Your task to perform on an android device: Open CNN.com Image 0: 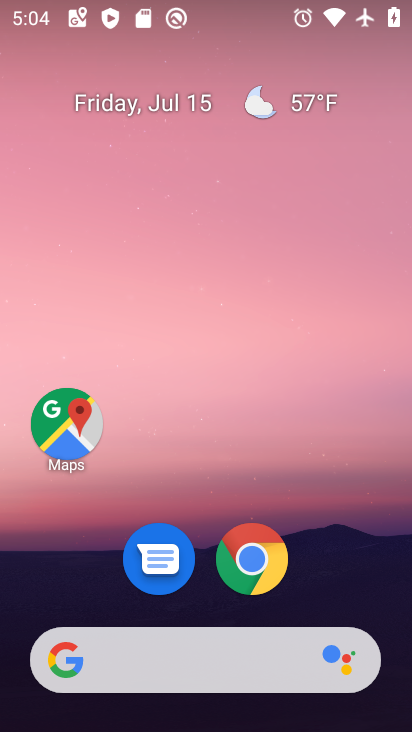
Step 0: click (258, 553)
Your task to perform on an android device: Open CNN.com Image 1: 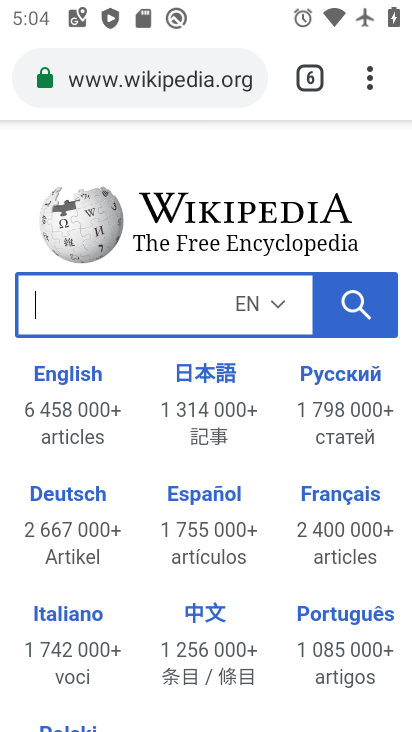
Step 1: click (317, 77)
Your task to perform on an android device: Open CNN.com Image 2: 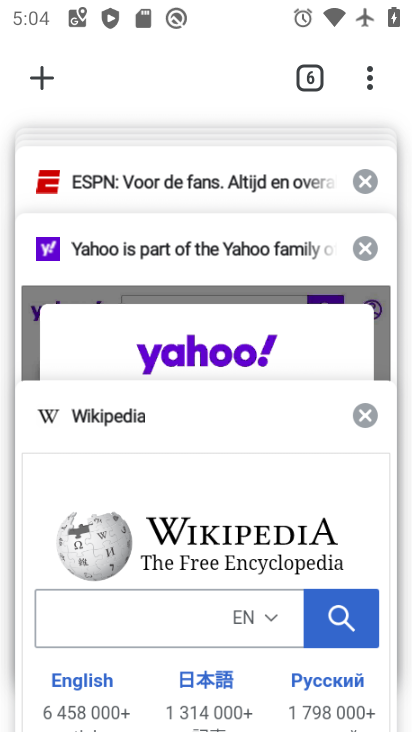
Step 2: click (369, 416)
Your task to perform on an android device: Open CNN.com Image 3: 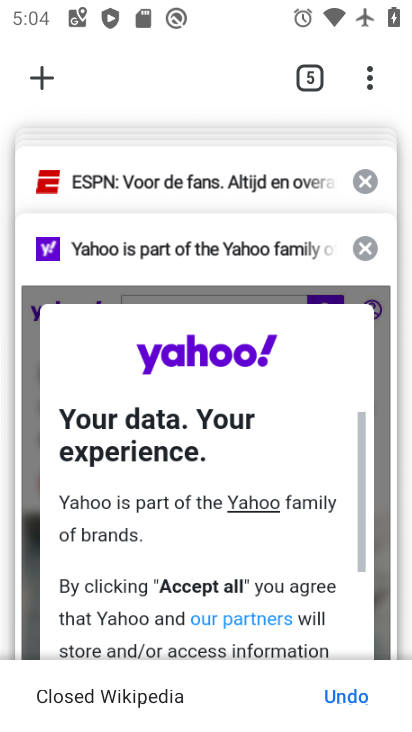
Step 3: click (41, 68)
Your task to perform on an android device: Open CNN.com Image 4: 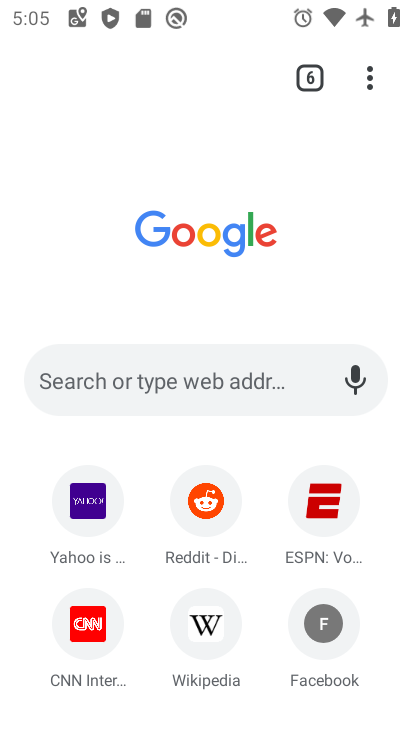
Step 4: click (136, 374)
Your task to perform on an android device: Open CNN.com Image 5: 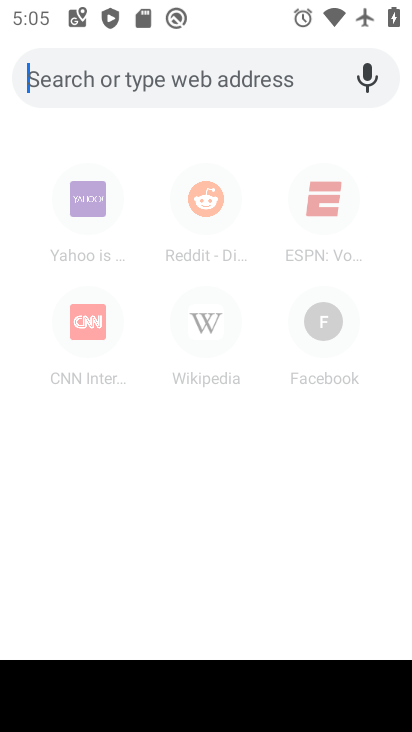
Step 5: click (88, 315)
Your task to perform on an android device: Open CNN.com Image 6: 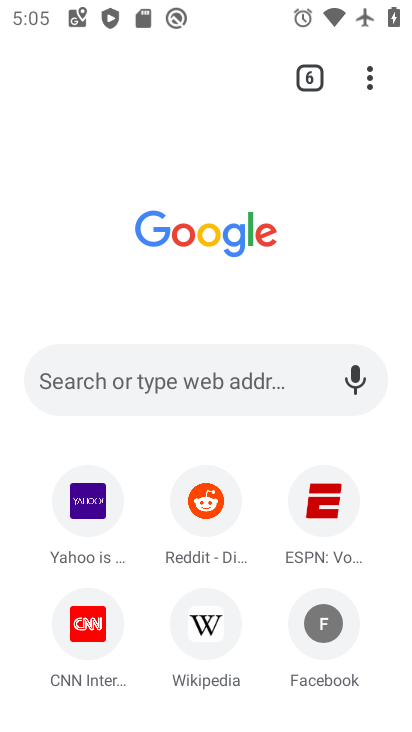
Step 6: click (97, 628)
Your task to perform on an android device: Open CNN.com Image 7: 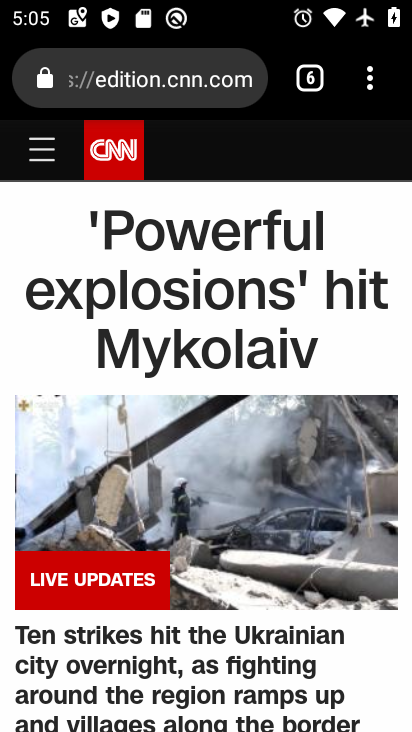
Step 7: task complete